Your task to perform on an android device: toggle data saver in the chrome app Image 0: 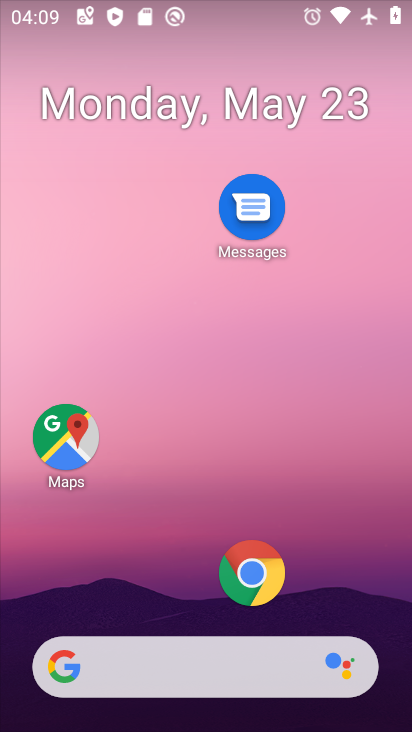
Step 0: drag from (300, 659) to (324, 9)
Your task to perform on an android device: toggle data saver in the chrome app Image 1: 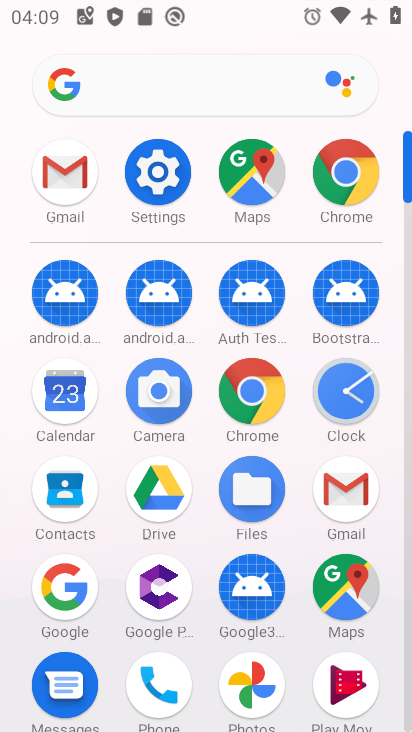
Step 1: click (255, 396)
Your task to perform on an android device: toggle data saver in the chrome app Image 2: 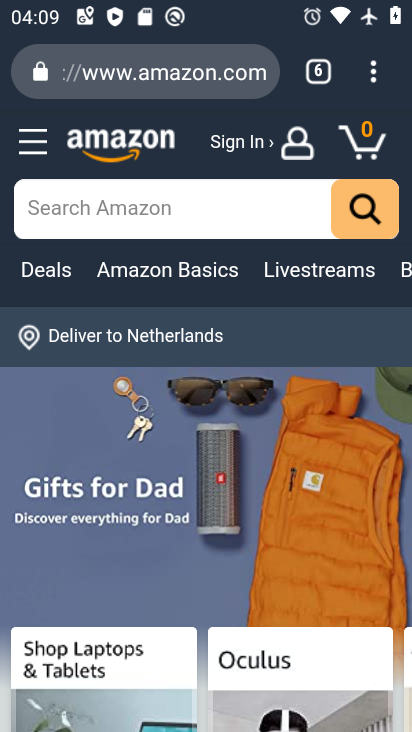
Step 2: click (379, 67)
Your task to perform on an android device: toggle data saver in the chrome app Image 3: 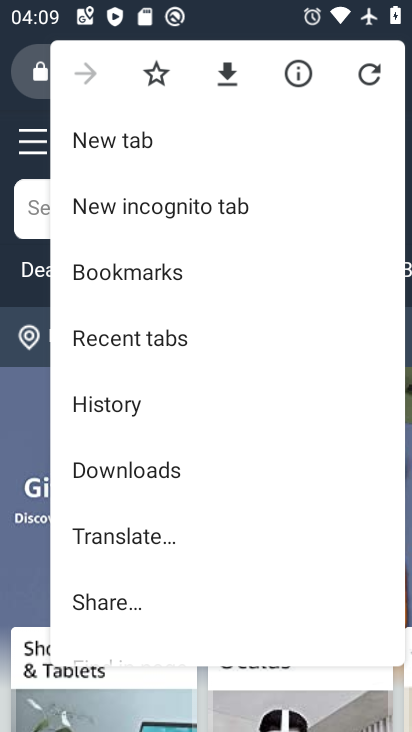
Step 3: press back button
Your task to perform on an android device: toggle data saver in the chrome app Image 4: 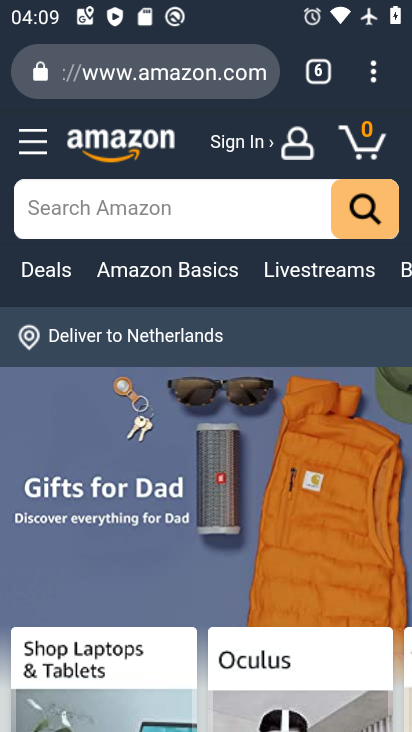
Step 4: click (371, 75)
Your task to perform on an android device: toggle data saver in the chrome app Image 5: 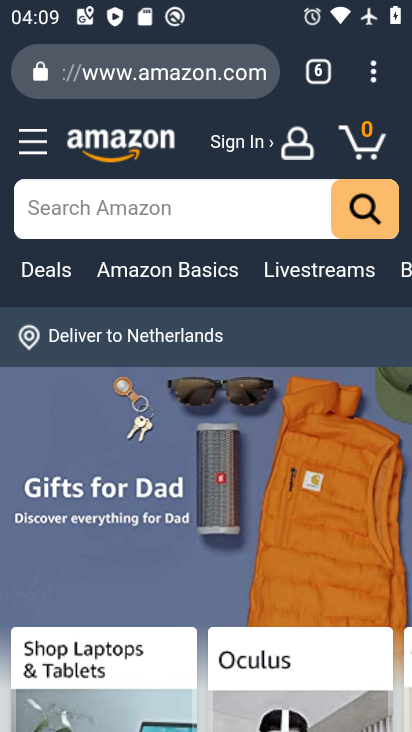
Step 5: drag from (373, 68) to (195, 575)
Your task to perform on an android device: toggle data saver in the chrome app Image 6: 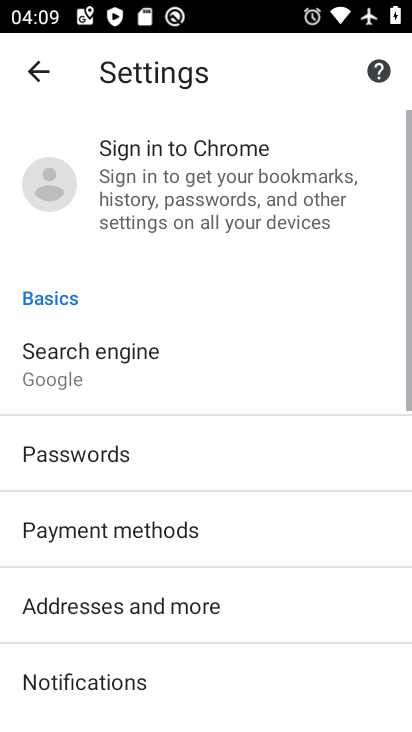
Step 6: drag from (270, 606) to (240, 82)
Your task to perform on an android device: toggle data saver in the chrome app Image 7: 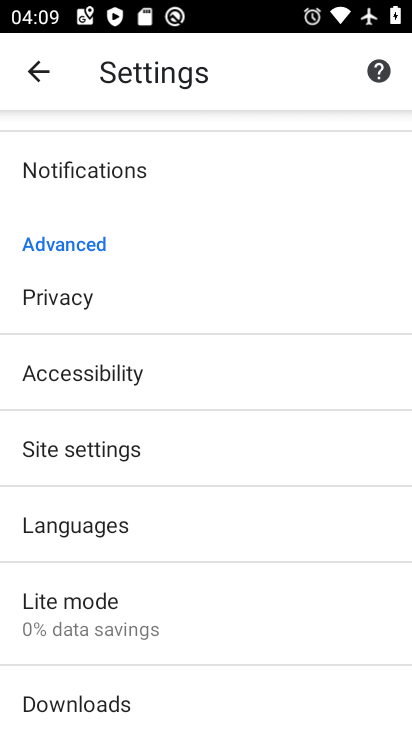
Step 7: click (144, 616)
Your task to perform on an android device: toggle data saver in the chrome app Image 8: 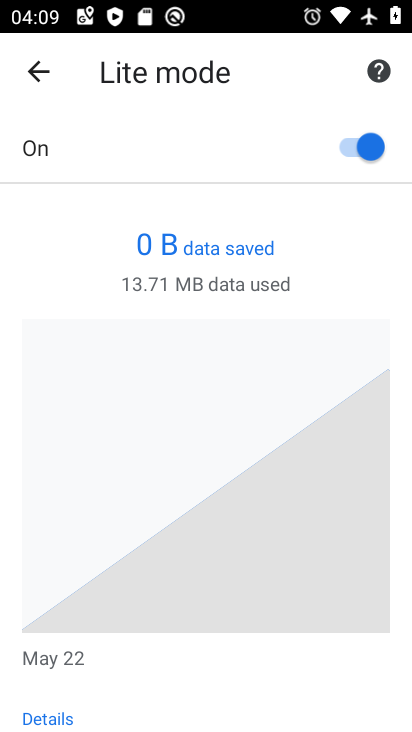
Step 8: click (353, 147)
Your task to perform on an android device: toggle data saver in the chrome app Image 9: 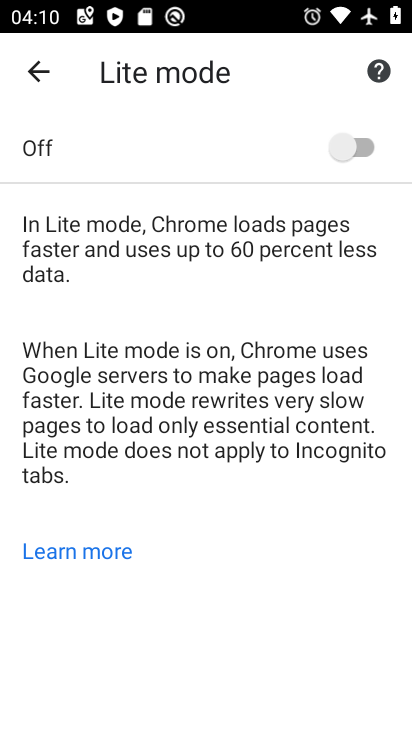
Step 9: task complete